Your task to perform on an android device: Go to notification settings Image 0: 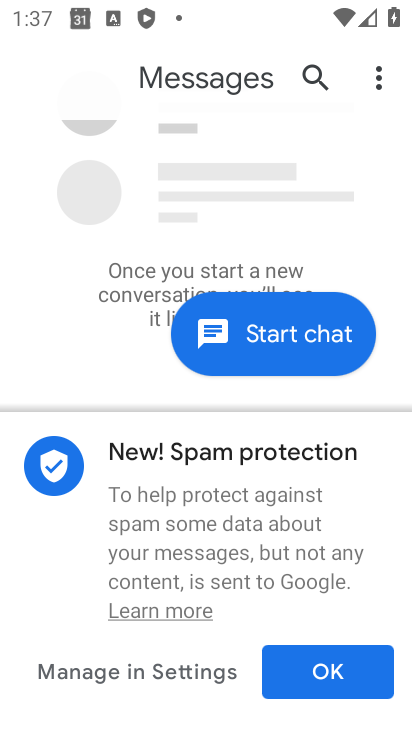
Step 0: press home button
Your task to perform on an android device: Go to notification settings Image 1: 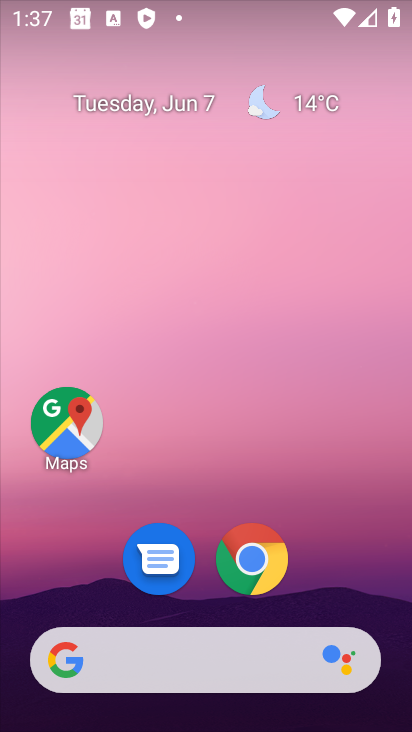
Step 1: drag from (26, 532) to (171, 210)
Your task to perform on an android device: Go to notification settings Image 2: 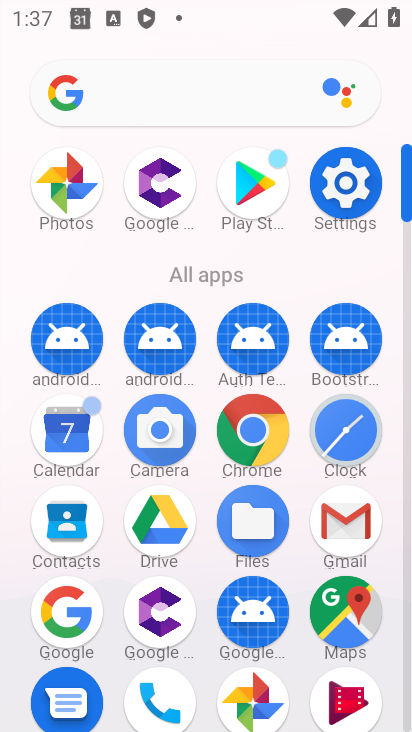
Step 2: click (332, 187)
Your task to perform on an android device: Go to notification settings Image 3: 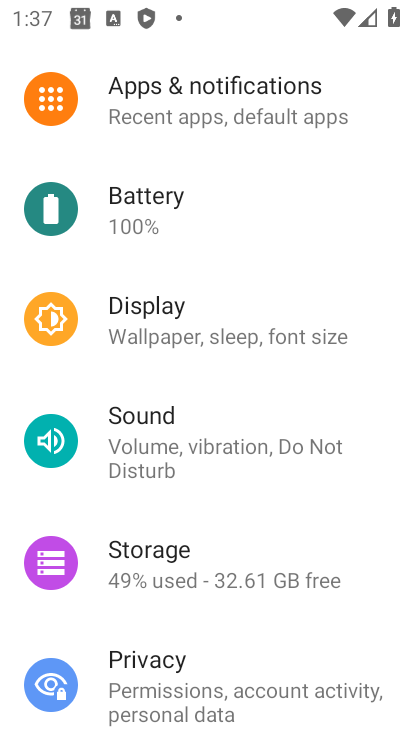
Step 3: click (140, 110)
Your task to perform on an android device: Go to notification settings Image 4: 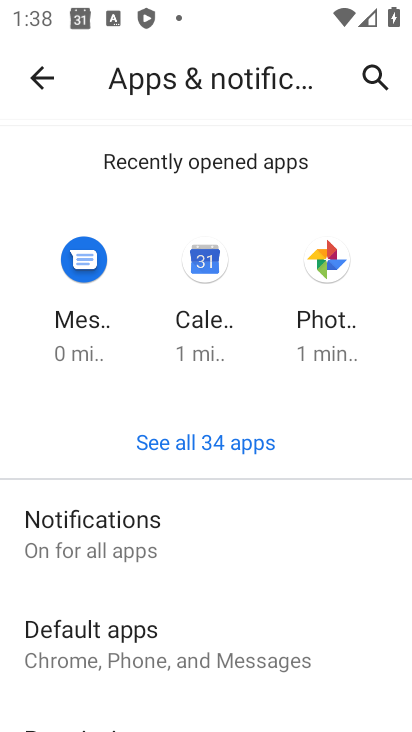
Step 4: task complete